Your task to perform on an android device: turn on location history Image 0: 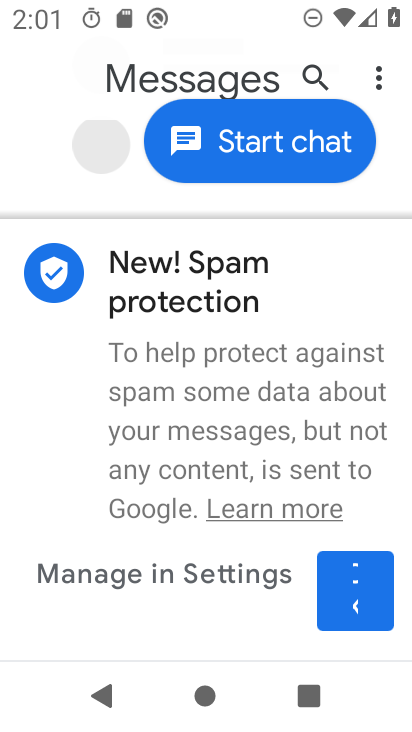
Step 0: press home button
Your task to perform on an android device: turn on location history Image 1: 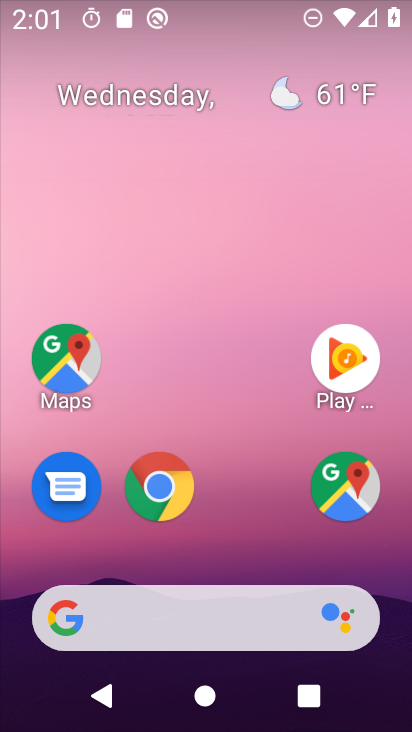
Step 1: drag from (235, 516) to (231, 76)
Your task to perform on an android device: turn on location history Image 2: 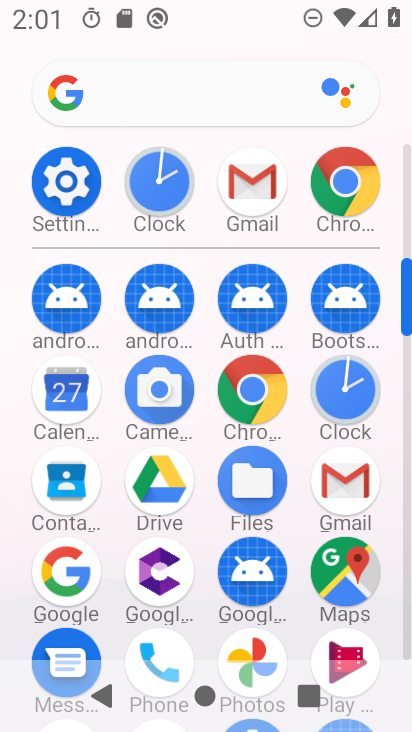
Step 2: click (76, 197)
Your task to perform on an android device: turn on location history Image 3: 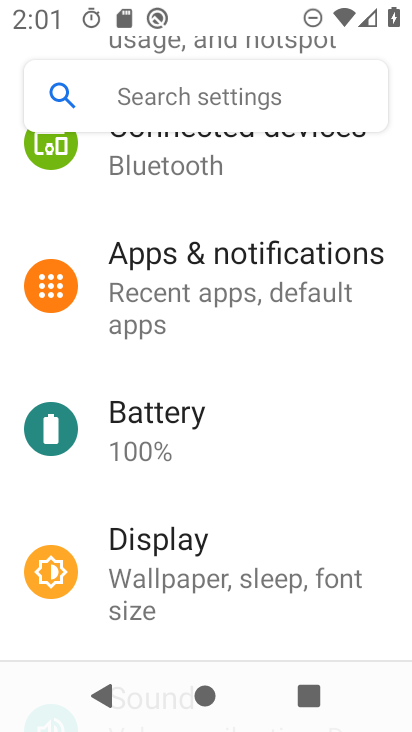
Step 3: drag from (363, 463) to (383, 360)
Your task to perform on an android device: turn on location history Image 4: 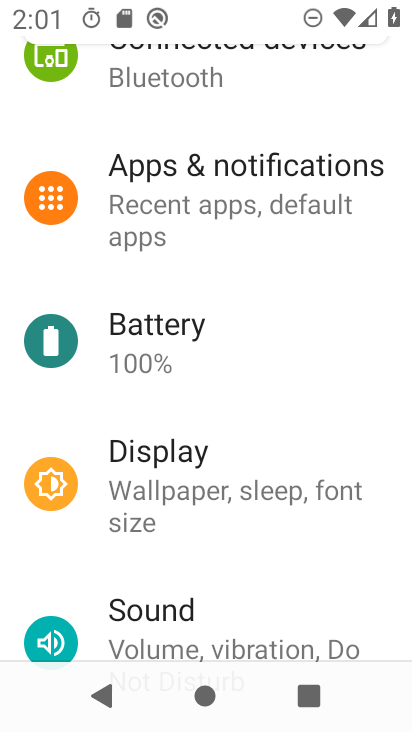
Step 4: drag from (357, 546) to (369, 454)
Your task to perform on an android device: turn on location history Image 5: 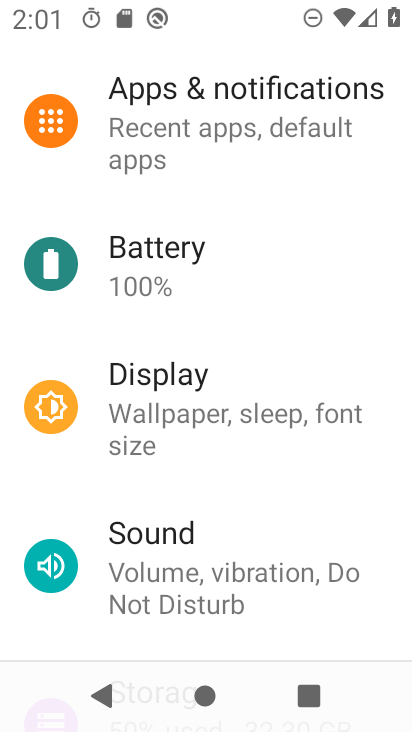
Step 5: drag from (358, 531) to (359, 393)
Your task to perform on an android device: turn on location history Image 6: 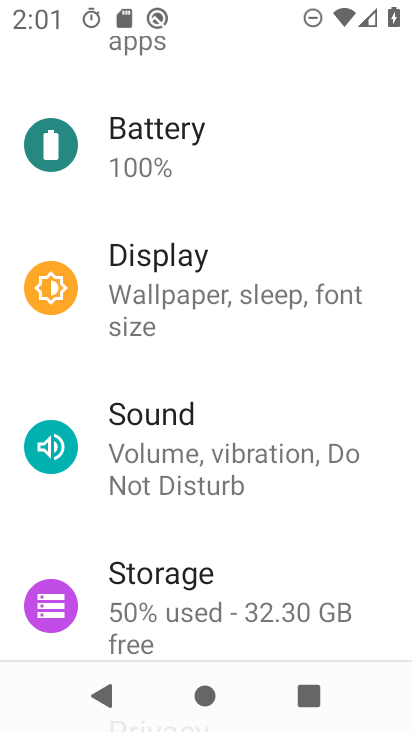
Step 6: drag from (369, 505) to (371, 418)
Your task to perform on an android device: turn on location history Image 7: 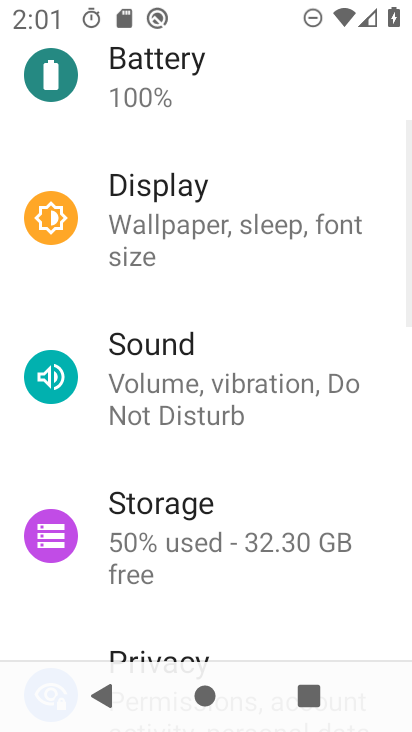
Step 7: drag from (373, 520) to (379, 418)
Your task to perform on an android device: turn on location history Image 8: 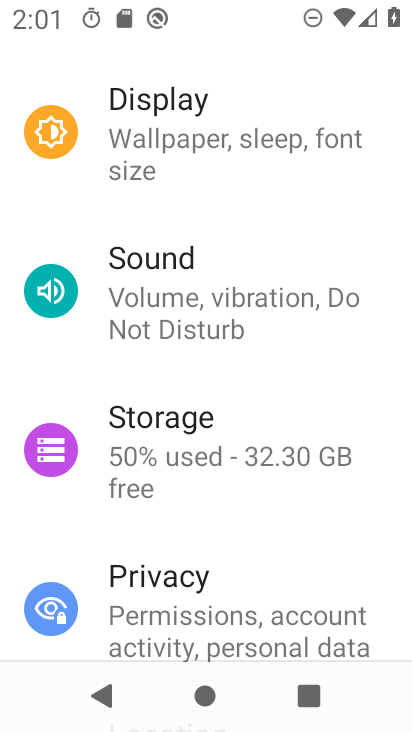
Step 8: drag from (357, 520) to (357, 423)
Your task to perform on an android device: turn on location history Image 9: 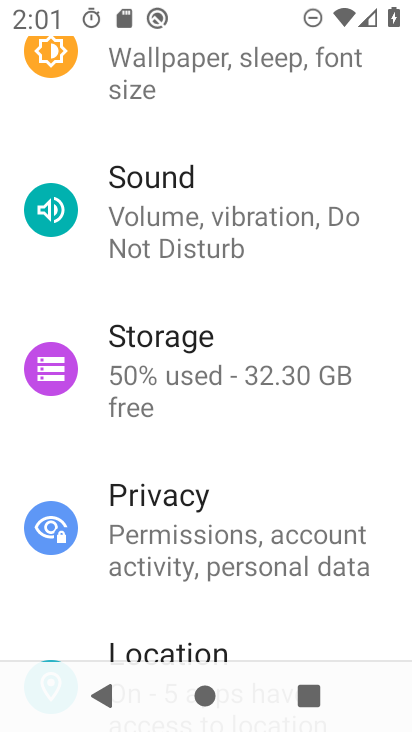
Step 9: drag from (356, 514) to (356, 414)
Your task to perform on an android device: turn on location history Image 10: 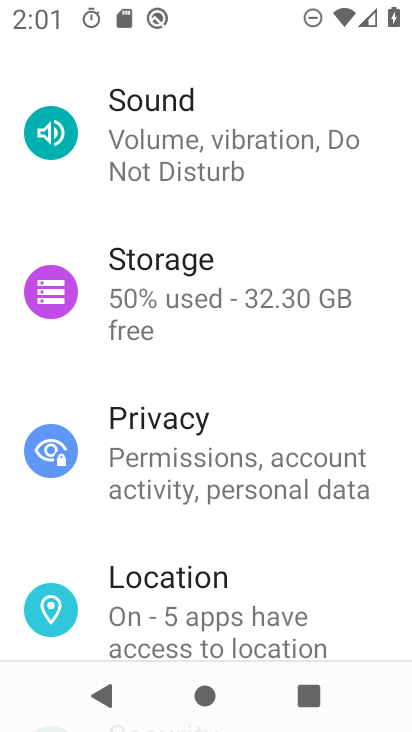
Step 10: drag from (356, 508) to (356, 440)
Your task to perform on an android device: turn on location history Image 11: 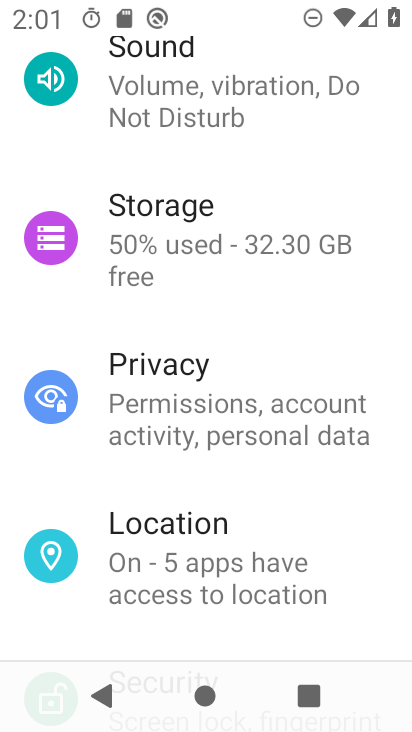
Step 11: drag from (349, 546) to (347, 460)
Your task to perform on an android device: turn on location history Image 12: 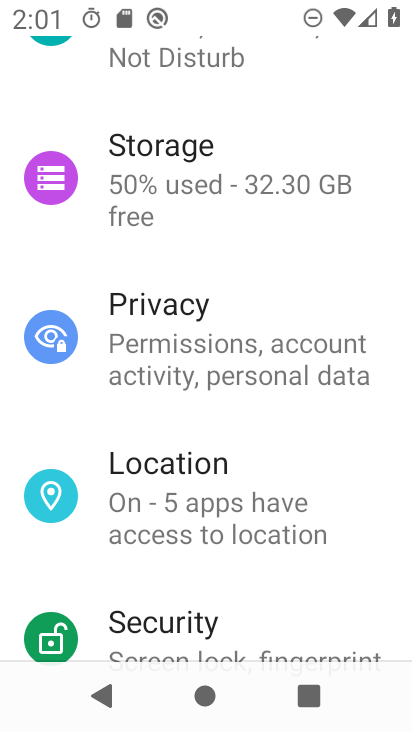
Step 12: drag from (343, 573) to (351, 375)
Your task to perform on an android device: turn on location history Image 13: 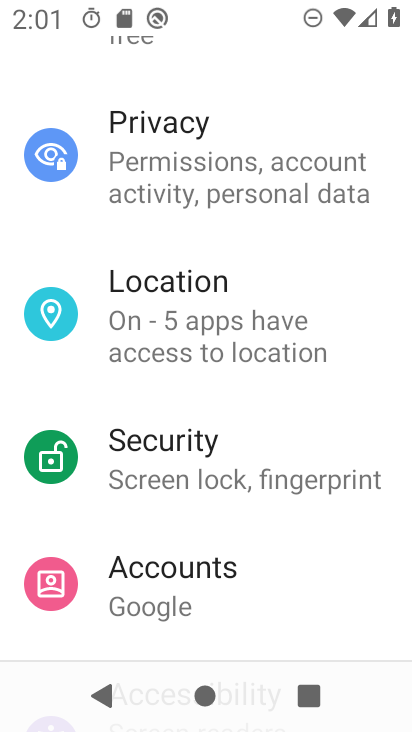
Step 13: click (331, 305)
Your task to perform on an android device: turn on location history Image 14: 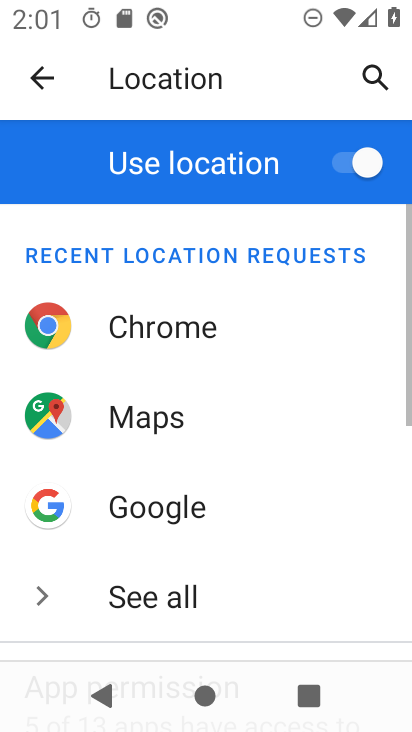
Step 14: drag from (323, 463) to (329, 417)
Your task to perform on an android device: turn on location history Image 15: 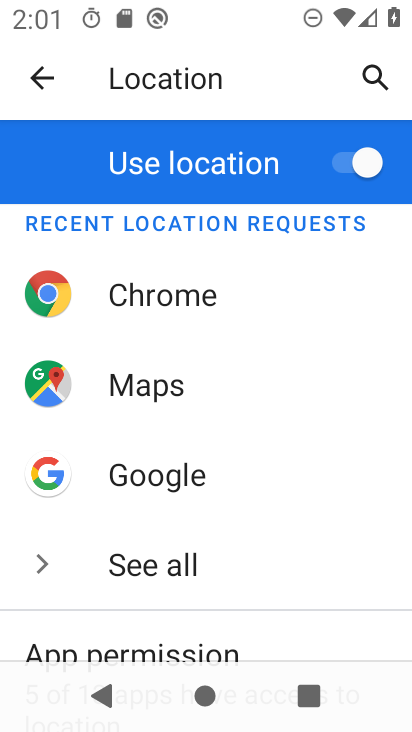
Step 15: drag from (339, 543) to (354, 474)
Your task to perform on an android device: turn on location history Image 16: 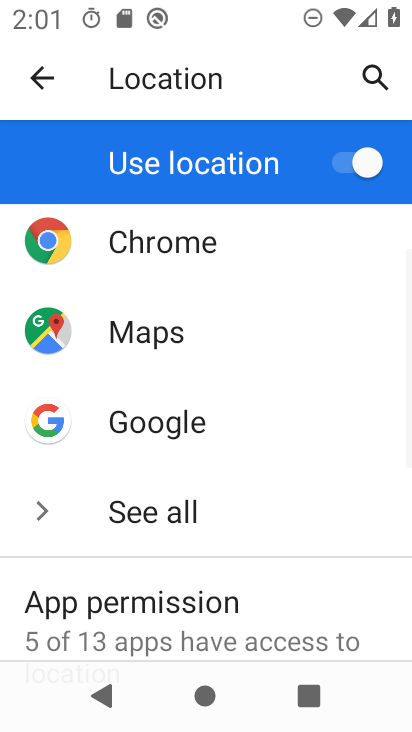
Step 16: drag from (337, 543) to (345, 451)
Your task to perform on an android device: turn on location history Image 17: 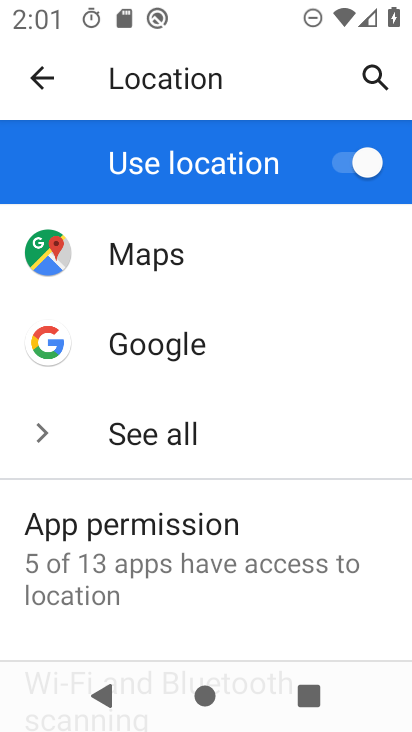
Step 17: drag from (309, 536) to (325, 425)
Your task to perform on an android device: turn on location history Image 18: 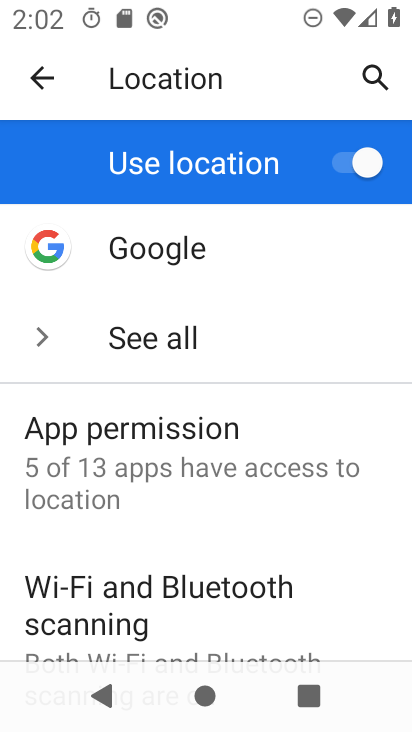
Step 18: drag from (313, 539) to (316, 454)
Your task to perform on an android device: turn on location history Image 19: 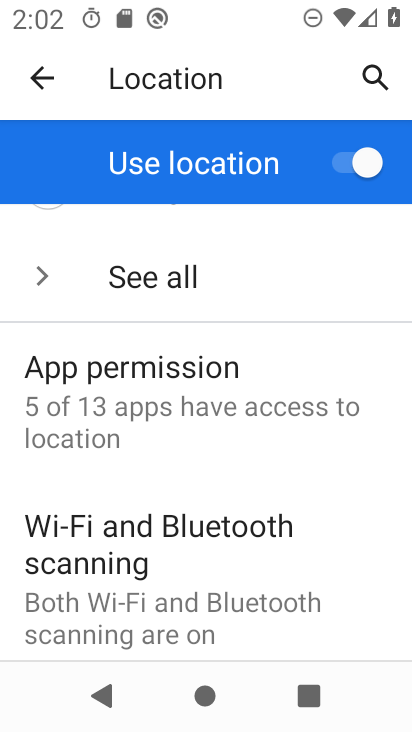
Step 19: drag from (329, 550) to (339, 435)
Your task to perform on an android device: turn on location history Image 20: 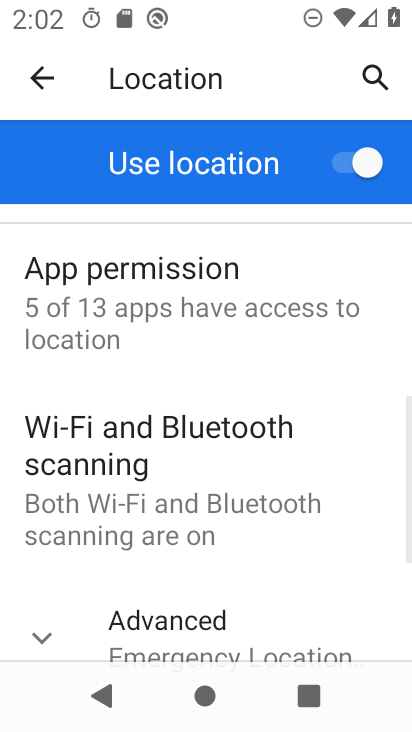
Step 20: drag from (329, 576) to (335, 399)
Your task to perform on an android device: turn on location history Image 21: 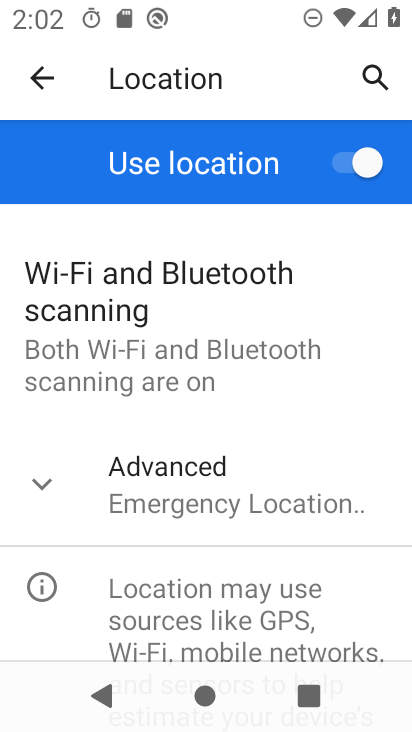
Step 21: drag from (334, 574) to (336, 457)
Your task to perform on an android device: turn on location history Image 22: 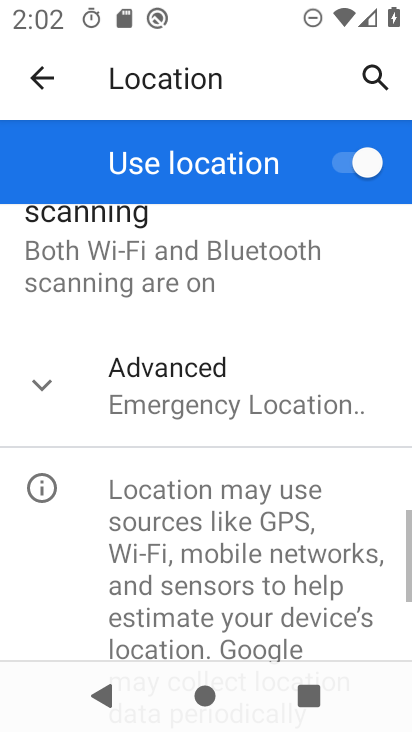
Step 22: click (335, 431)
Your task to perform on an android device: turn on location history Image 23: 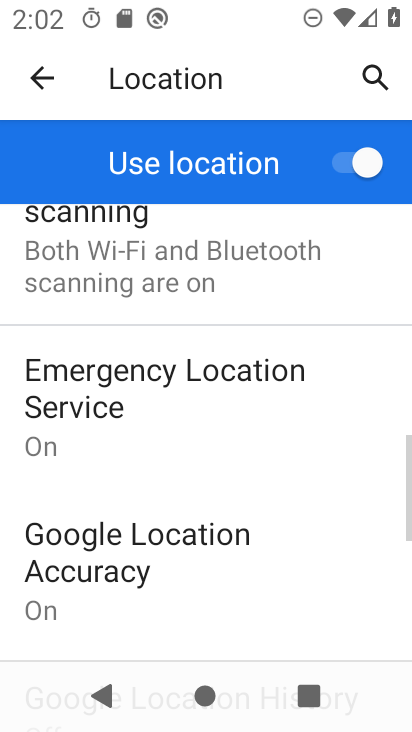
Step 23: drag from (324, 551) to (326, 450)
Your task to perform on an android device: turn on location history Image 24: 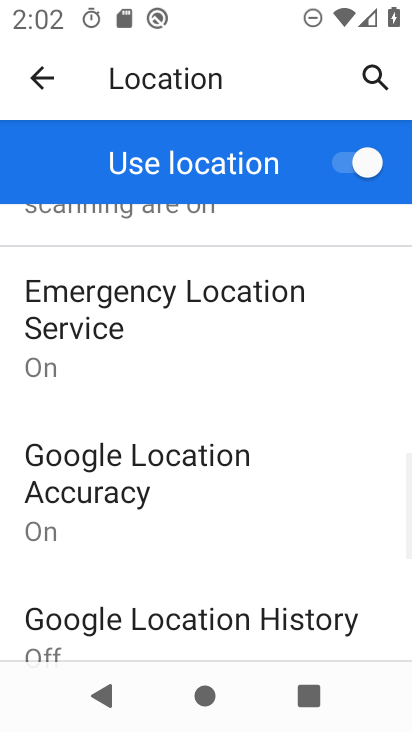
Step 24: drag from (309, 539) to (314, 399)
Your task to perform on an android device: turn on location history Image 25: 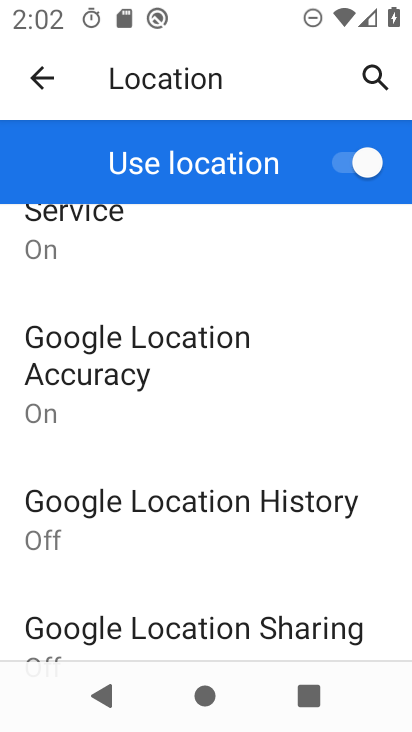
Step 25: click (289, 532)
Your task to perform on an android device: turn on location history Image 26: 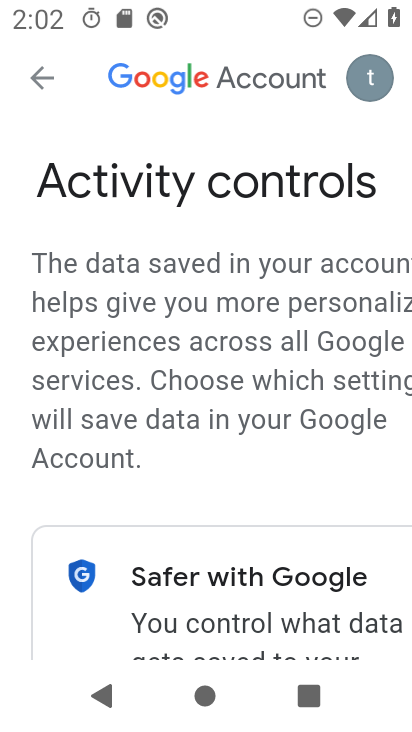
Step 26: drag from (289, 533) to (297, 303)
Your task to perform on an android device: turn on location history Image 27: 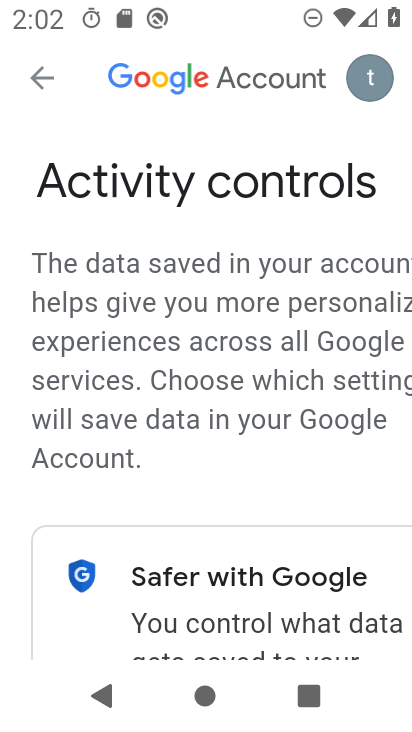
Step 27: drag from (294, 565) to (283, 321)
Your task to perform on an android device: turn on location history Image 28: 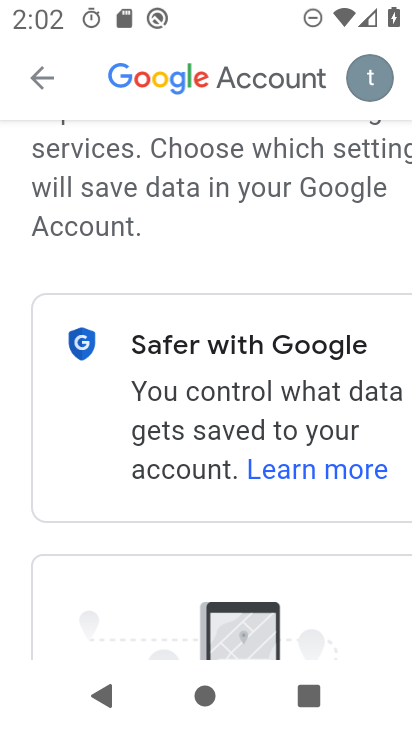
Step 28: drag from (277, 581) to (277, 391)
Your task to perform on an android device: turn on location history Image 29: 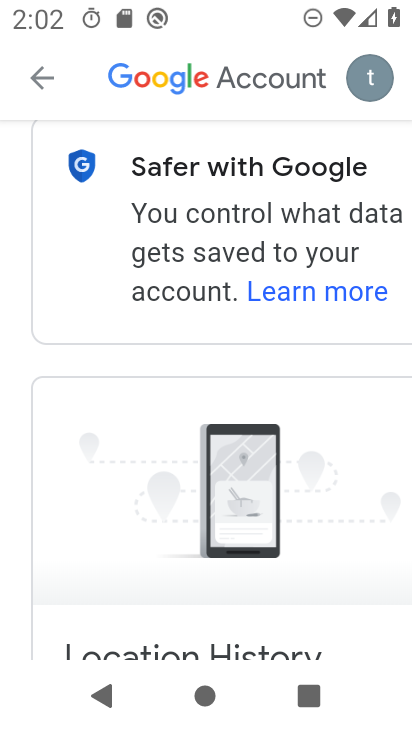
Step 29: drag from (267, 618) to (267, 437)
Your task to perform on an android device: turn on location history Image 30: 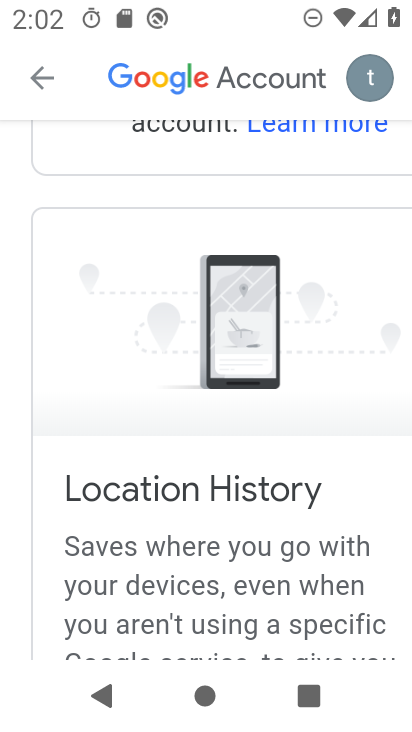
Step 30: drag from (257, 625) to (254, 343)
Your task to perform on an android device: turn on location history Image 31: 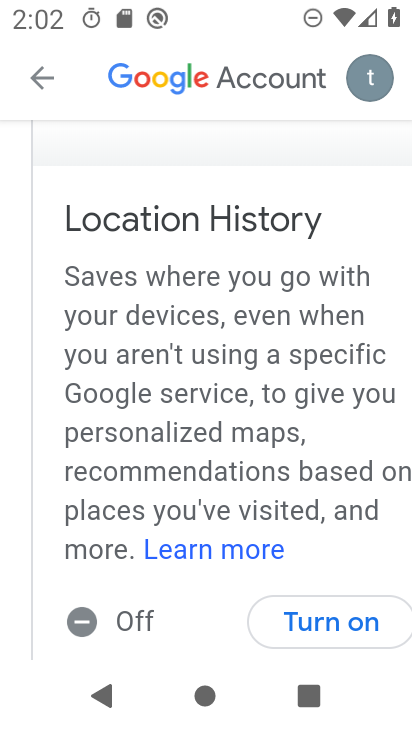
Step 31: click (325, 633)
Your task to perform on an android device: turn on location history Image 32: 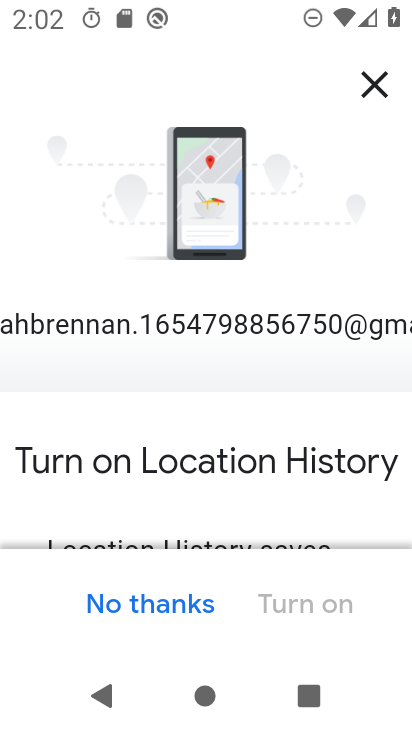
Step 32: drag from (189, 477) to (209, 357)
Your task to perform on an android device: turn on location history Image 33: 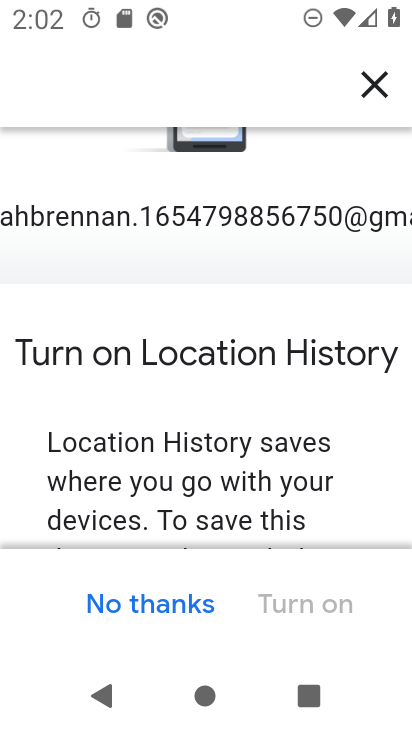
Step 33: drag from (245, 475) to (253, 374)
Your task to perform on an android device: turn on location history Image 34: 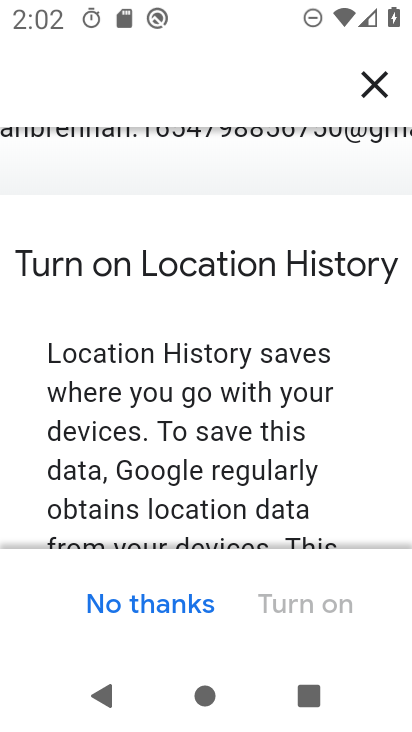
Step 34: drag from (291, 491) to (305, 395)
Your task to perform on an android device: turn on location history Image 35: 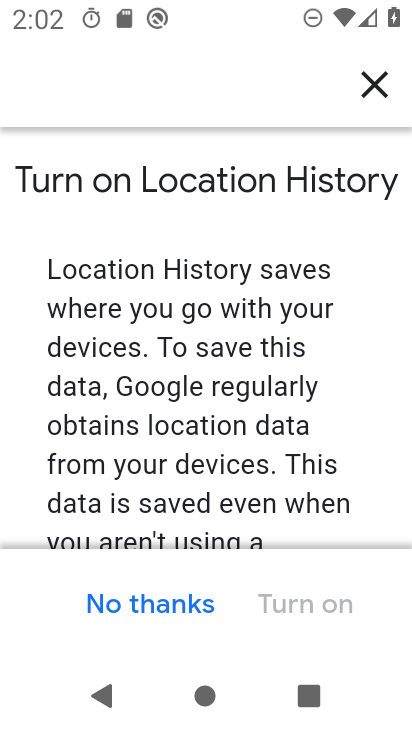
Step 35: drag from (319, 501) to (321, 372)
Your task to perform on an android device: turn on location history Image 36: 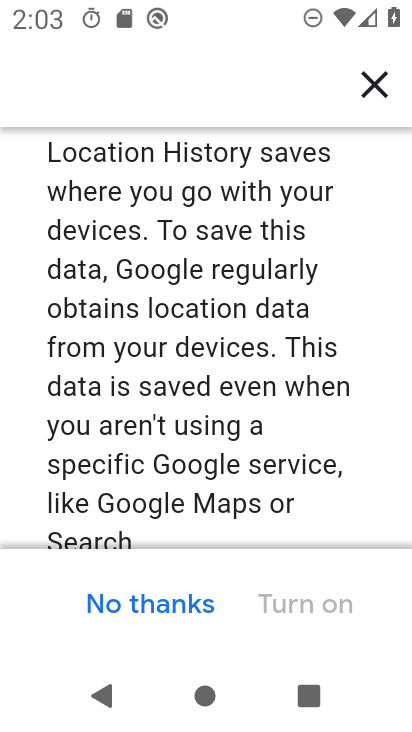
Step 36: drag from (327, 494) to (327, 338)
Your task to perform on an android device: turn on location history Image 37: 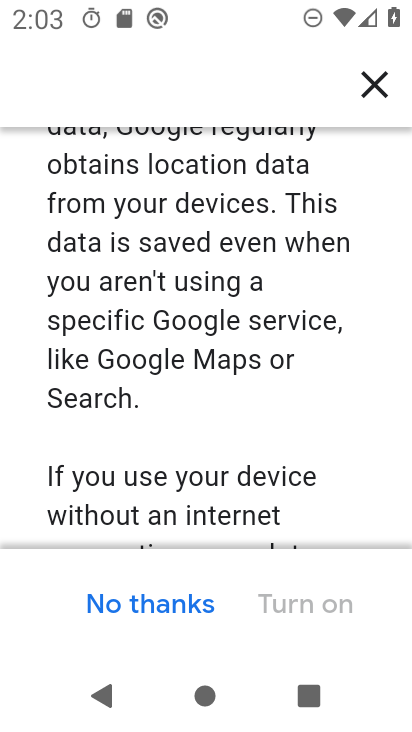
Step 37: drag from (316, 477) to (312, 278)
Your task to perform on an android device: turn on location history Image 38: 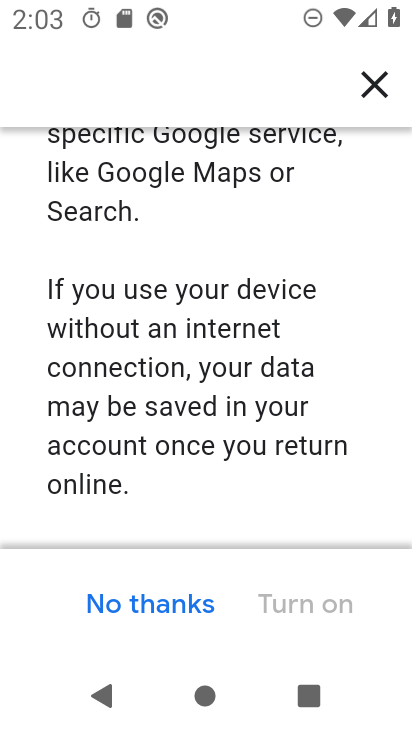
Step 38: drag from (327, 480) to (327, 290)
Your task to perform on an android device: turn on location history Image 39: 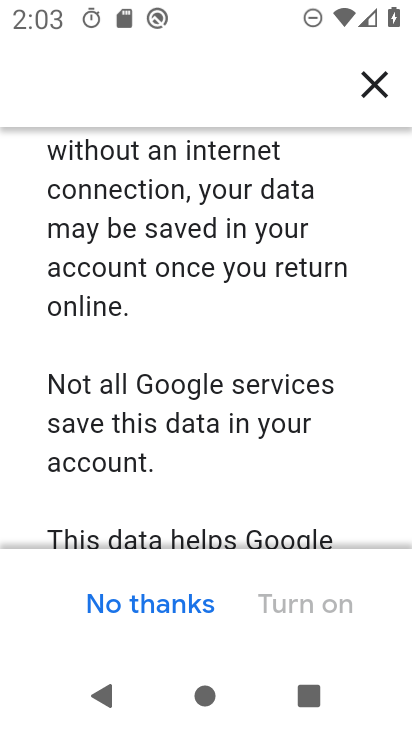
Step 39: drag from (302, 508) to (301, 302)
Your task to perform on an android device: turn on location history Image 40: 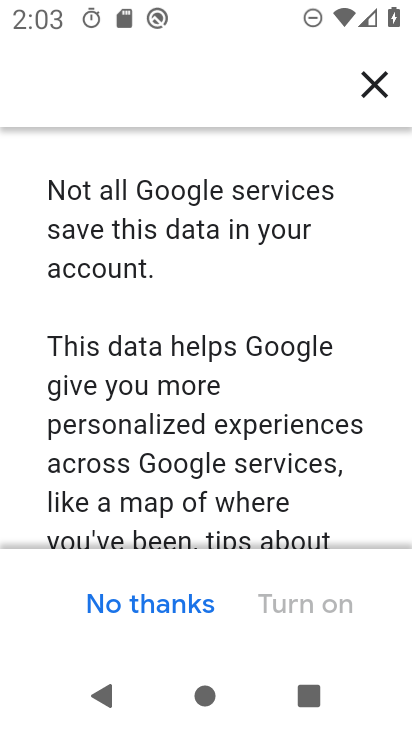
Step 40: drag from (294, 515) to (309, 276)
Your task to perform on an android device: turn on location history Image 41: 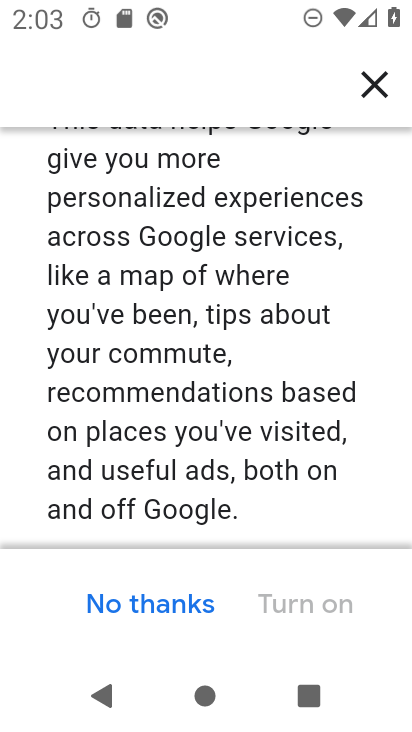
Step 41: drag from (324, 509) to (334, 251)
Your task to perform on an android device: turn on location history Image 42: 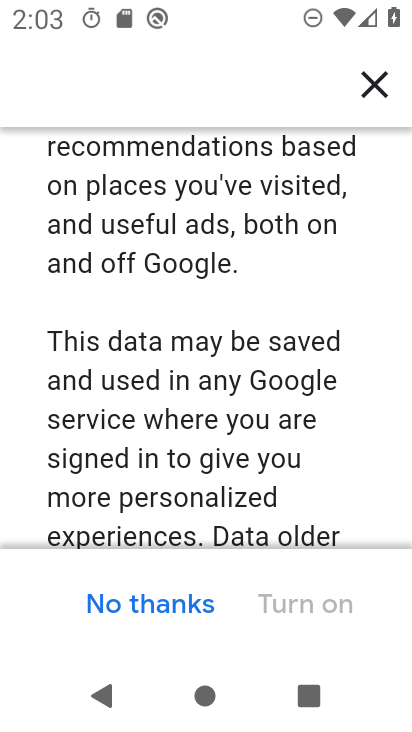
Step 42: drag from (350, 513) to (347, 251)
Your task to perform on an android device: turn on location history Image 43: 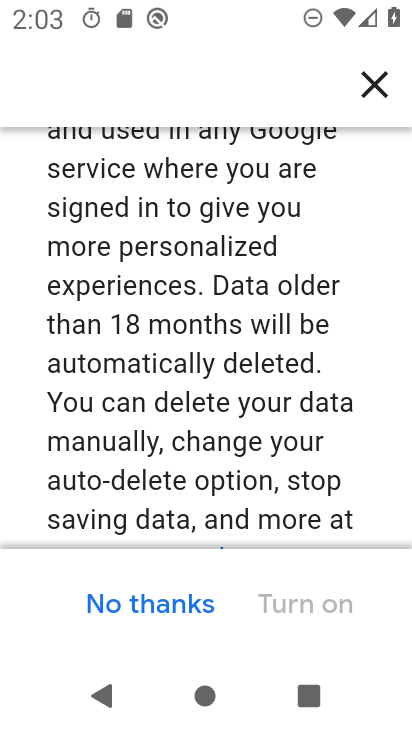
Step 43: drag from (365, 465) to (365, 248)
Your task to perform on an android device: turn on location history Image 44: 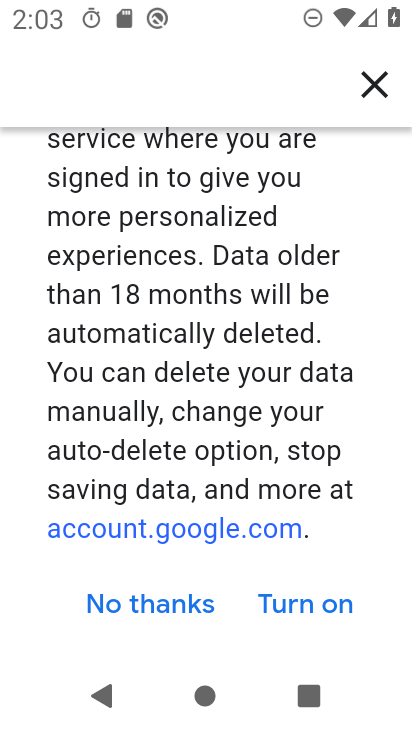
Step 44: click (310, 613)
Your task to perform on an android device: turn on location history Image 45: 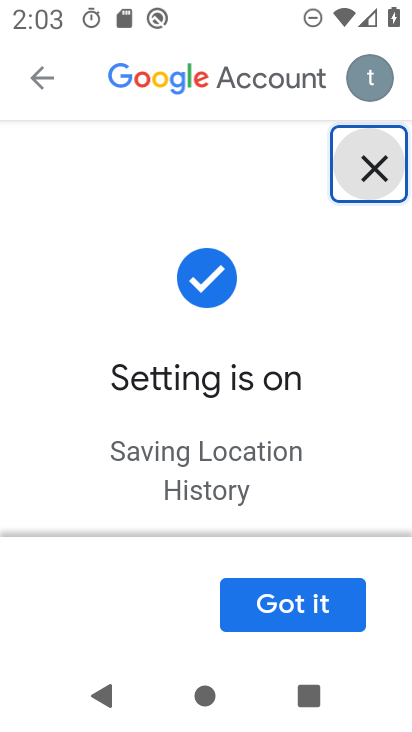
Step 45: task complete